Your task to perform on an android device: install app "NewsBreak: Local News & Alerts" Image 0: 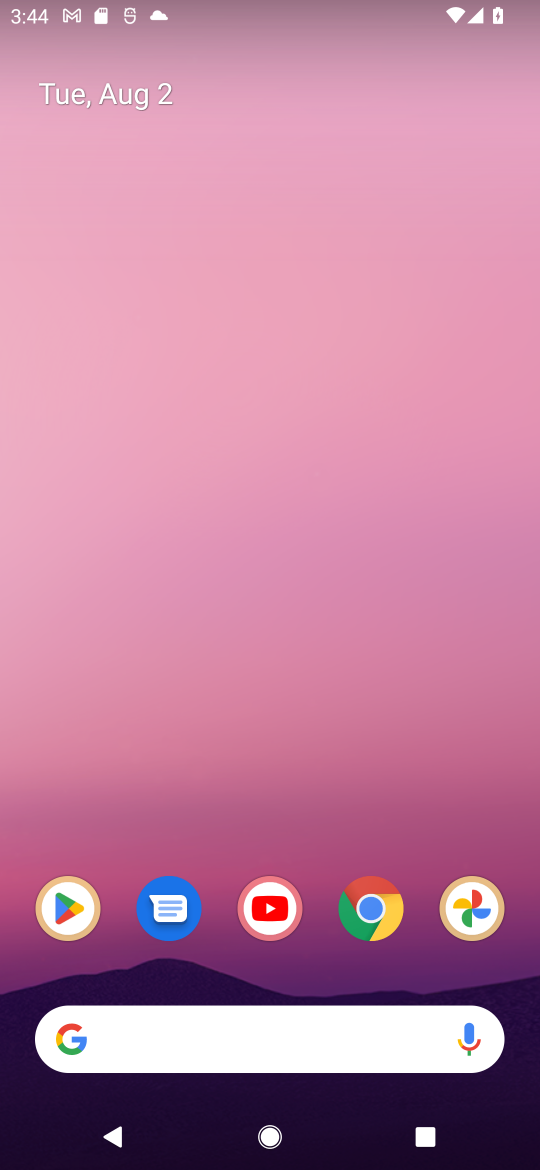
Step 0: press home button
Your task to perform on an android device: install app "NewsBreak: Local News & Alerts" Image 1: 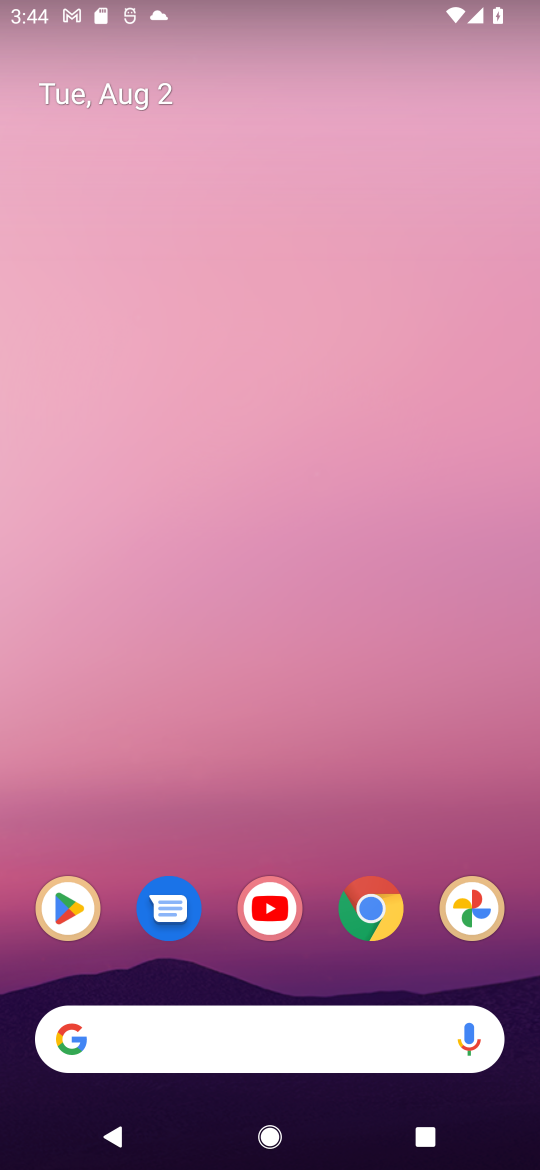
Step 1: click (58, 900)
Your task to perform on an android device: install app "NewsBreak: Local News & Alerts" Image 2: 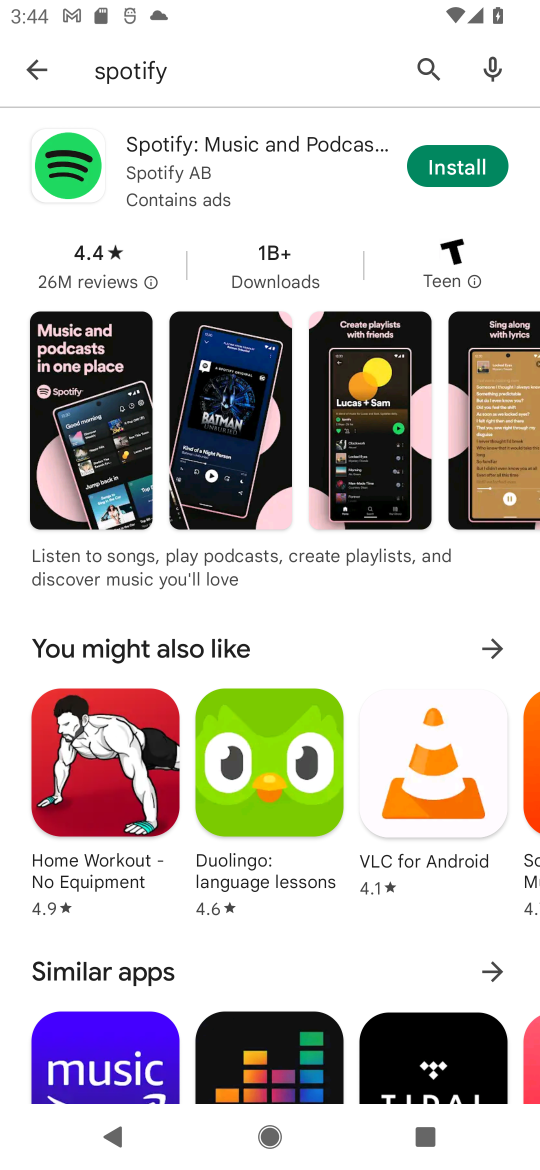
Step 2: click (421, 69)
Your task to perform on an android device: install app "NewsBreak: Local News & Alerts" Image 3: 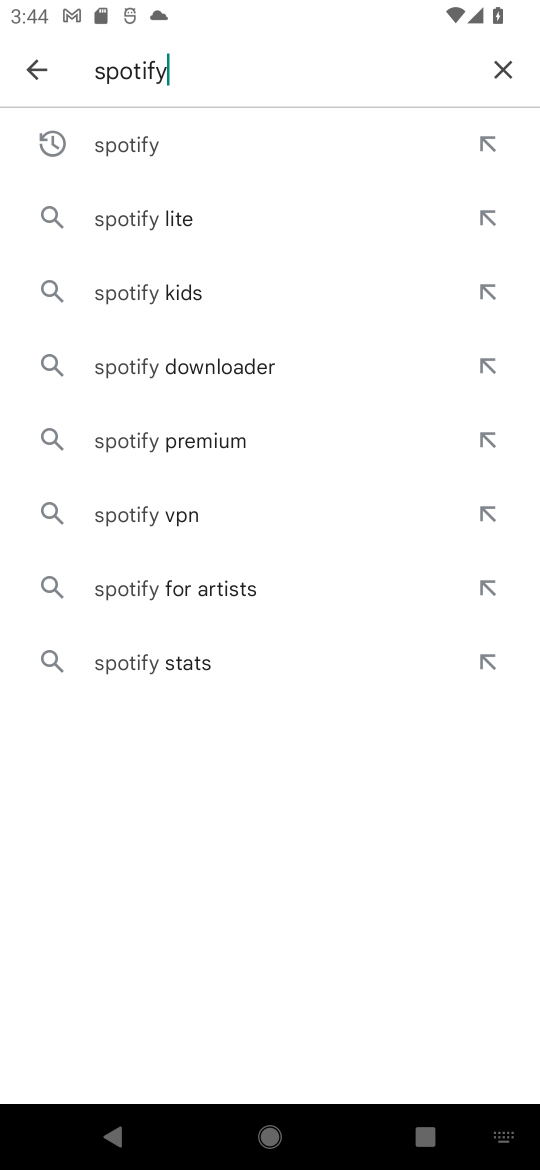
Step 3: click (505, 65)
Your task to perform on an android device: install app "NewsBreak: Local News & Alerts" Image 4: 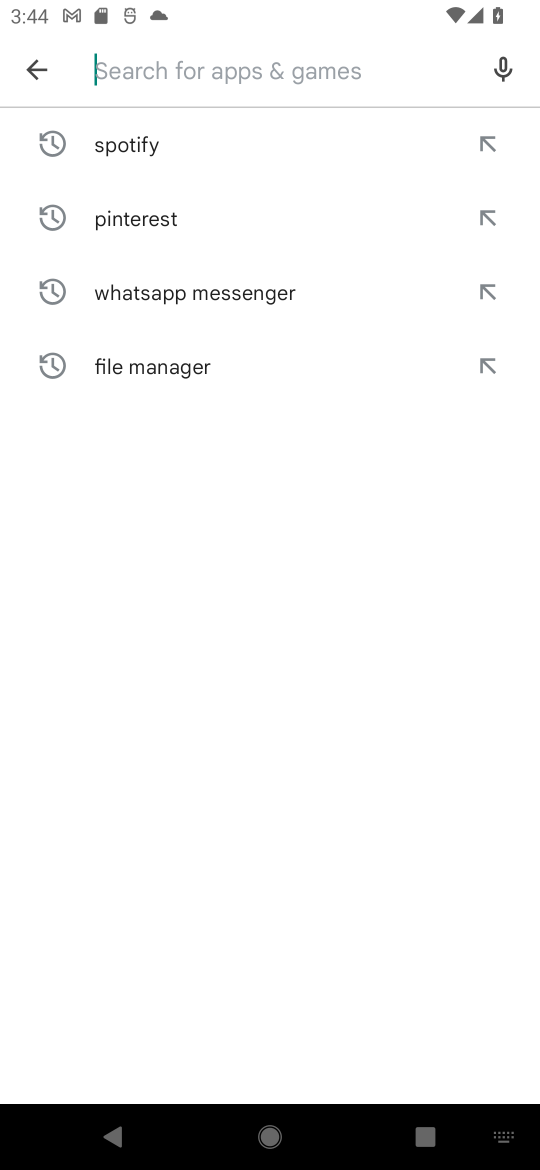
Step 4: type "NewsBreak: Local News & Alerts"
Your task to perform on an android device: install app "NewsBreak: Local News & Alerts" Image 5: 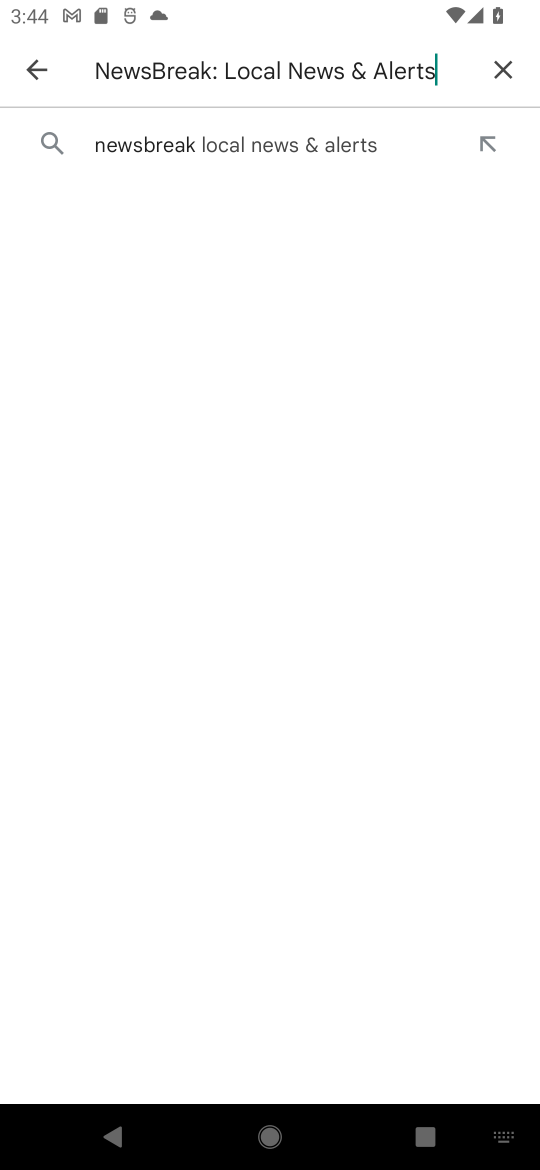
Step 5: click (377, 142)
Your task to perform on an android device: install app "NewsBreak: Local News & Alerts" Image 6: 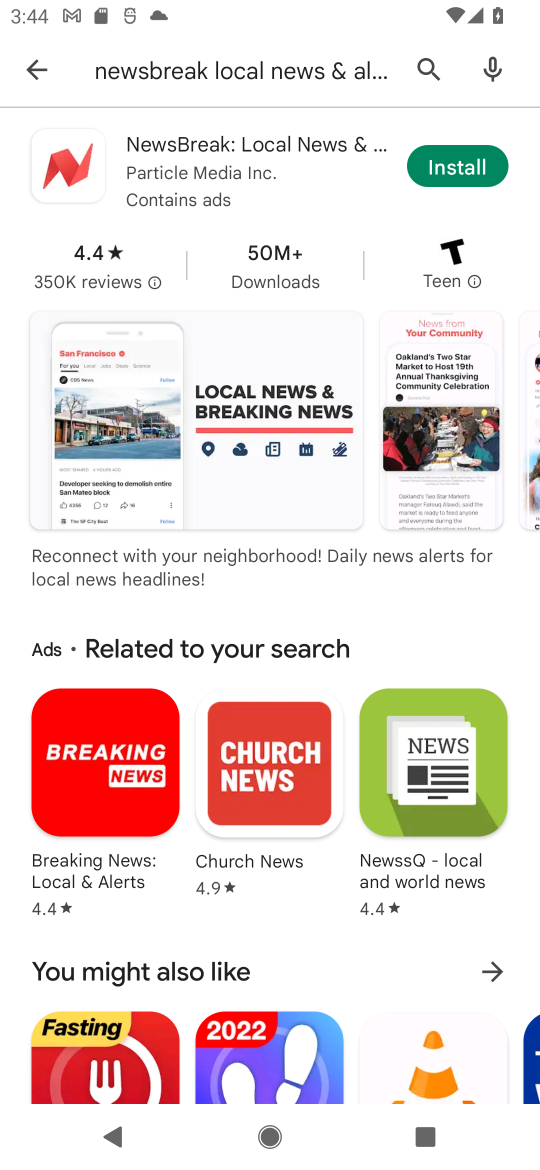
Step 6: click (469, 163)
Your task to perform on an android device: install app "NewsBreak: Local News & Alerts" Image 7: 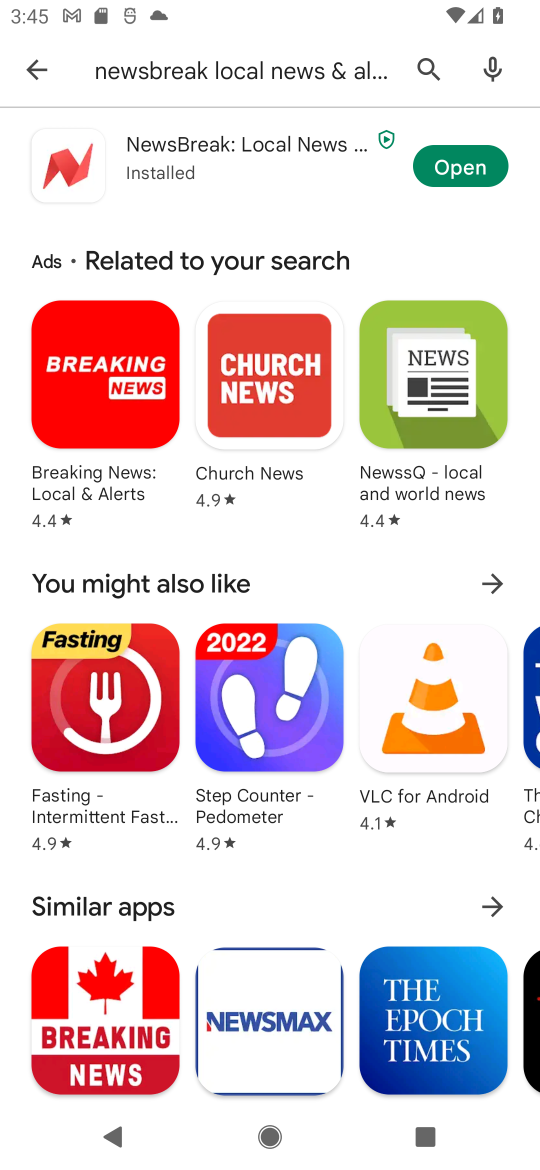
Step 7: click (469, 174)
Your task to perform on an android device: install app "NewsBreak: Local News & Alerts" Image 8: 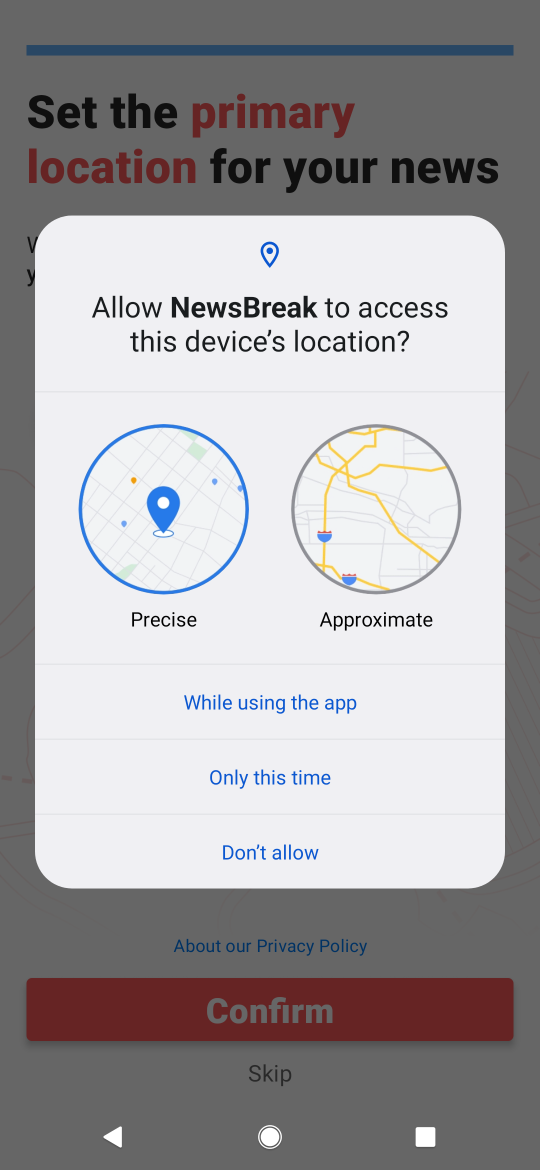
Step 8: click (304, 704)
Your task to perform on an android device: install app "NewsBreak: Local News & Alerts" Image 9: 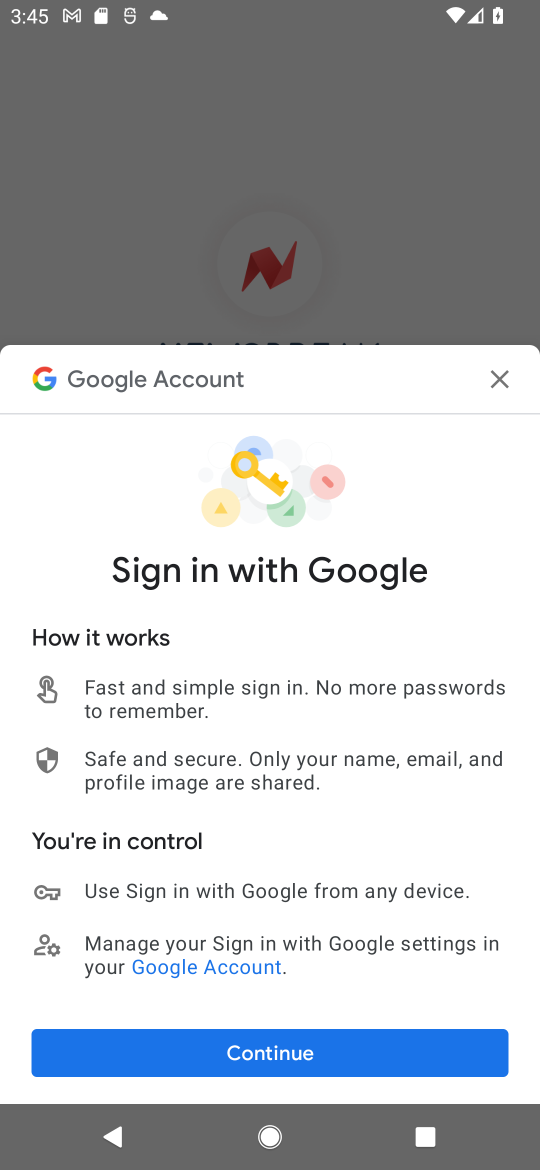
Step 9: click (275, 1055)
Your task to perform on an android device: install app "NewsBreak: Local News & Alerts" Image 10: 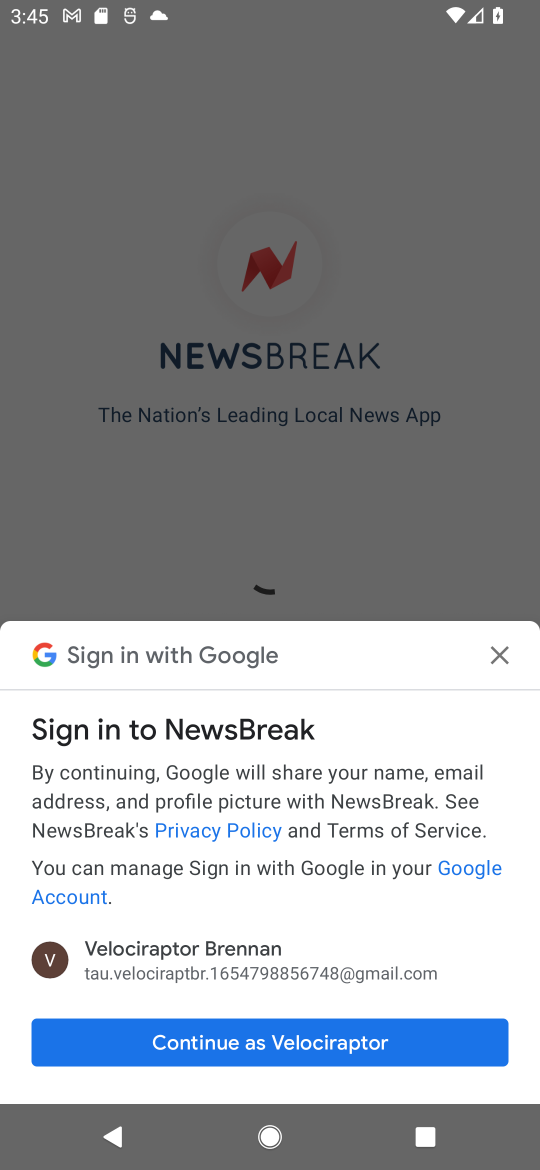
Step 10: click (326, 1029)
Your task to perform on an android device: install app "NewsBreak: Local News & Alerts" Image 11: 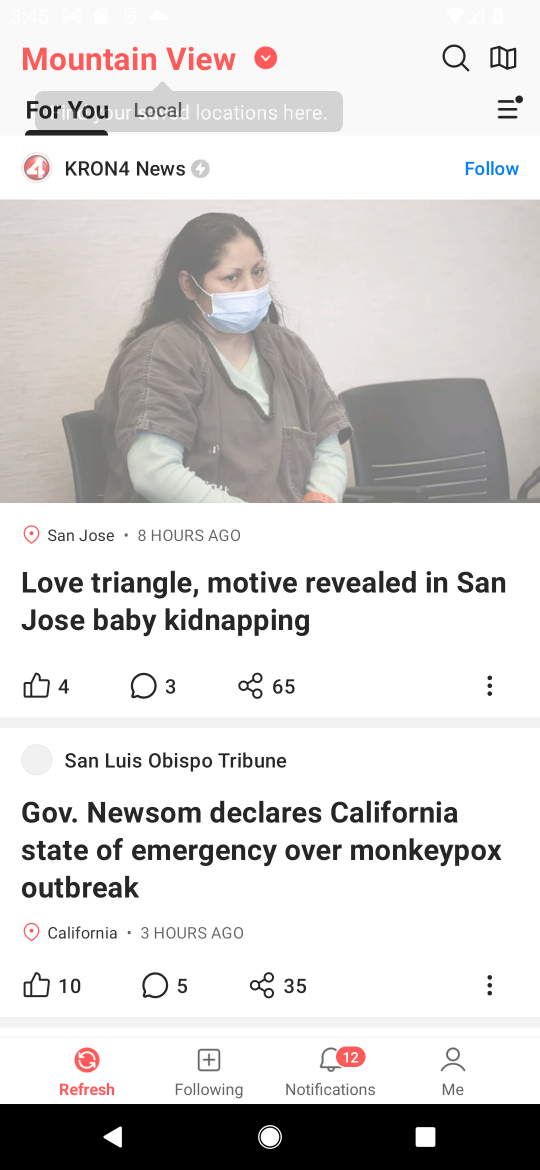
Step 11: task complete